Your task to perform on an android device: turn off wifi Image 0: 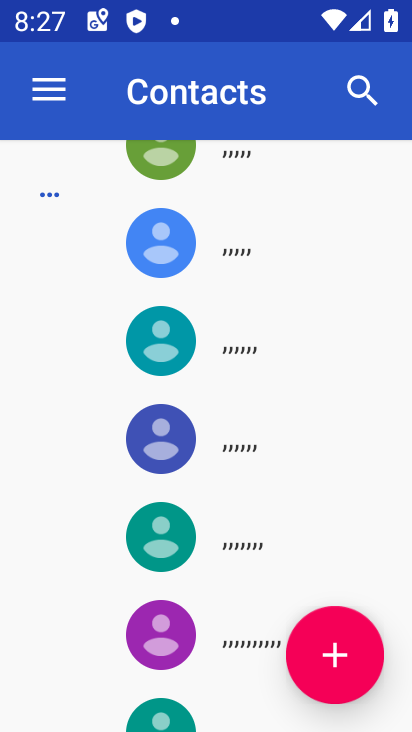
Step 0: press home button
Your task to perform on an android device: turn off wifi Image 1: 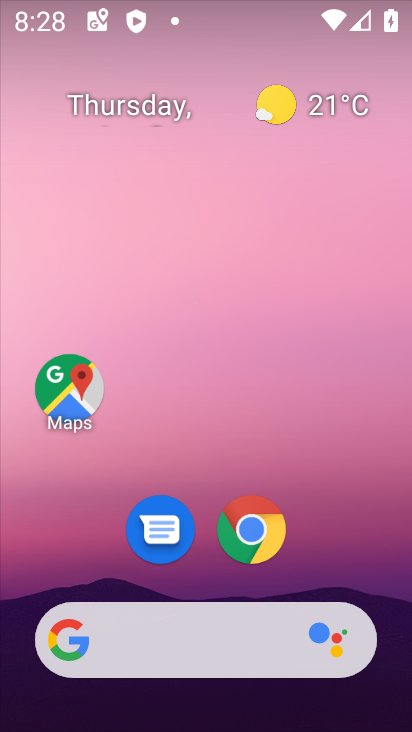
Step 1: drag from (227, 718) to (307, 13)
Your task to perform on an android device: turn off wifi Image 2: 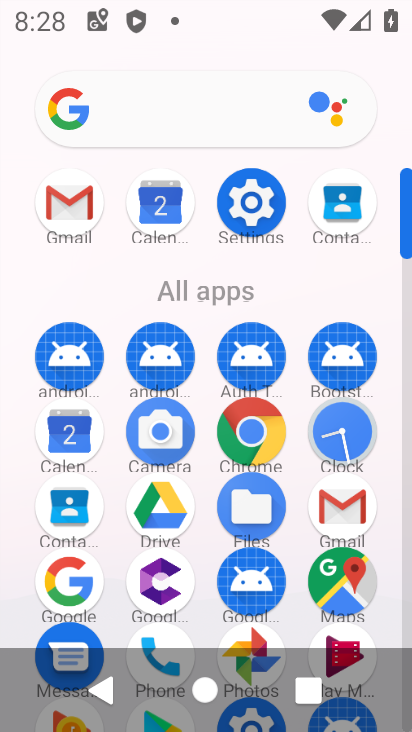
Step 2: click (232, 228)
Your task to perform on an android device: turn off wifi Image 3: 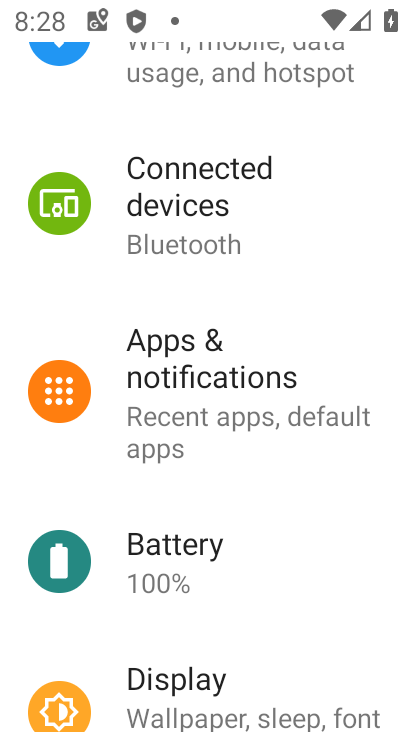
Step 3: click (330, 76)
Your task to perform on an android device: turn off wifi Image 4: 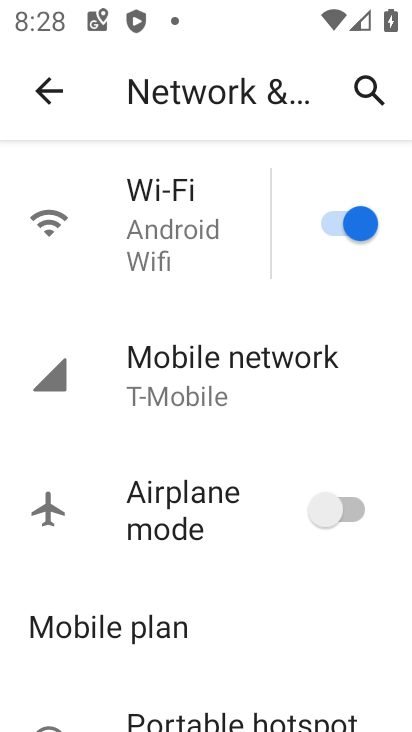
Step 4: click (360, 226)
Your task to perform on an android device: turn off wifi Image 5: 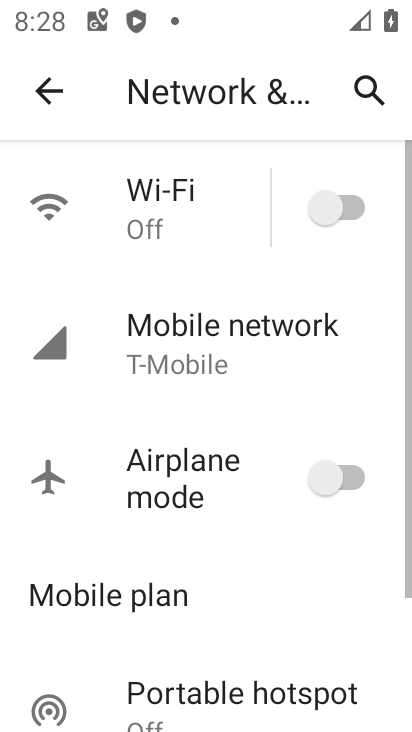
Step 5: task complete